Your task to perform on an android device: Go to notification settings Image 0: 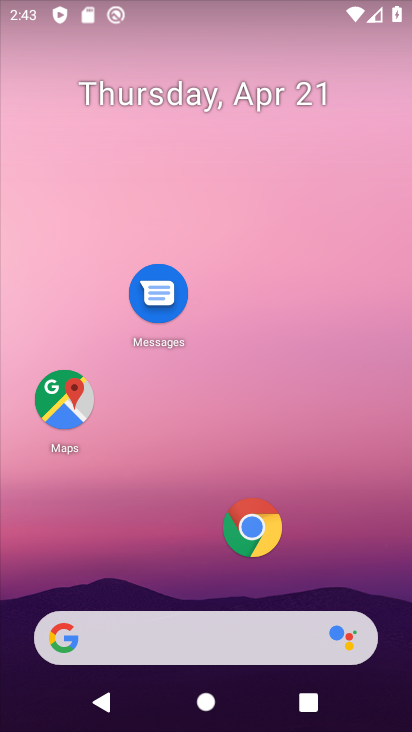
Step 0: drag from (221, 609) to (270, 167)
Your task to perform on an android device: Go to notification settings Image 1: 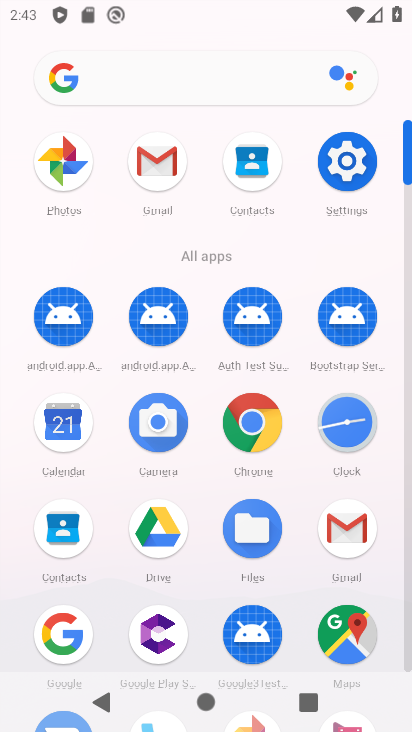
Step 1: click (343, 169)
Your task to perform on an android device: Go to notification settings Image 2: 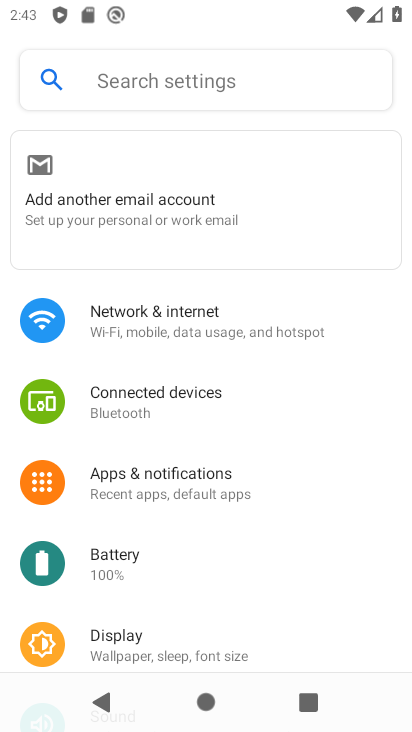
Step 2: click (144, 483)
Your task to perform on an android device: Go to notification settings Image 3: 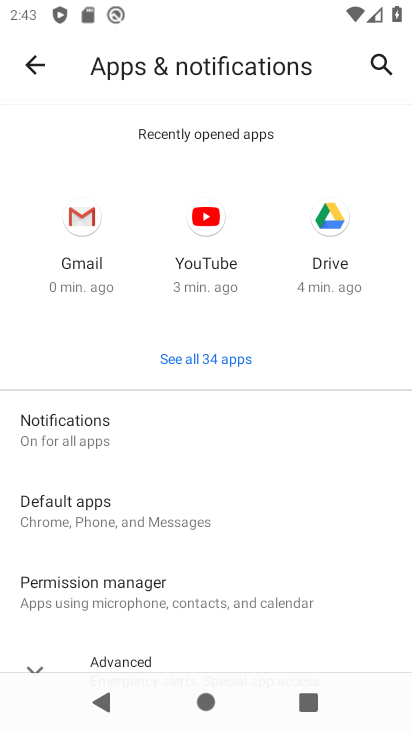
Step 3: drag from (228, 627) to (282, 344)
Your task to perform on an android device: Go to notification settings Image 4: 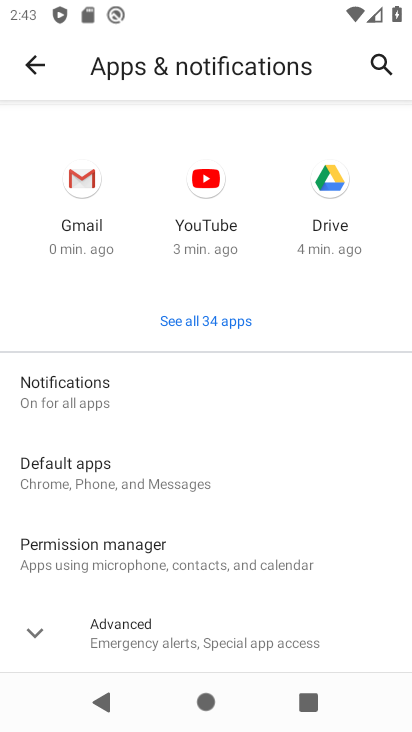
Step 4: click (145, 638)
Your task to perform on an android device: Go to notification settings Image 5: 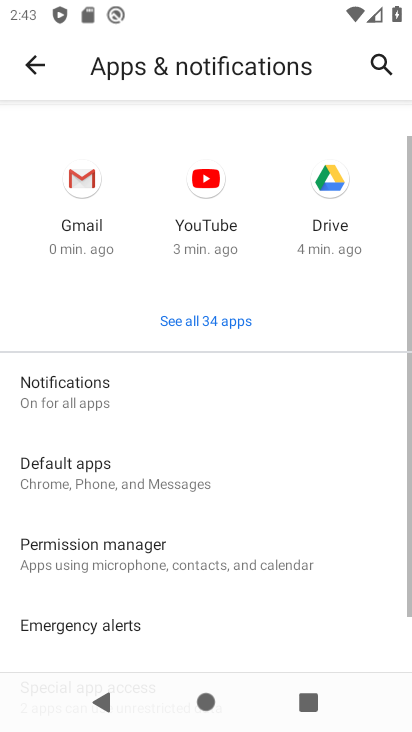
Step 5: task complete